Your task to perform on an android device: What's on my calendar tomorrow? Image 0: 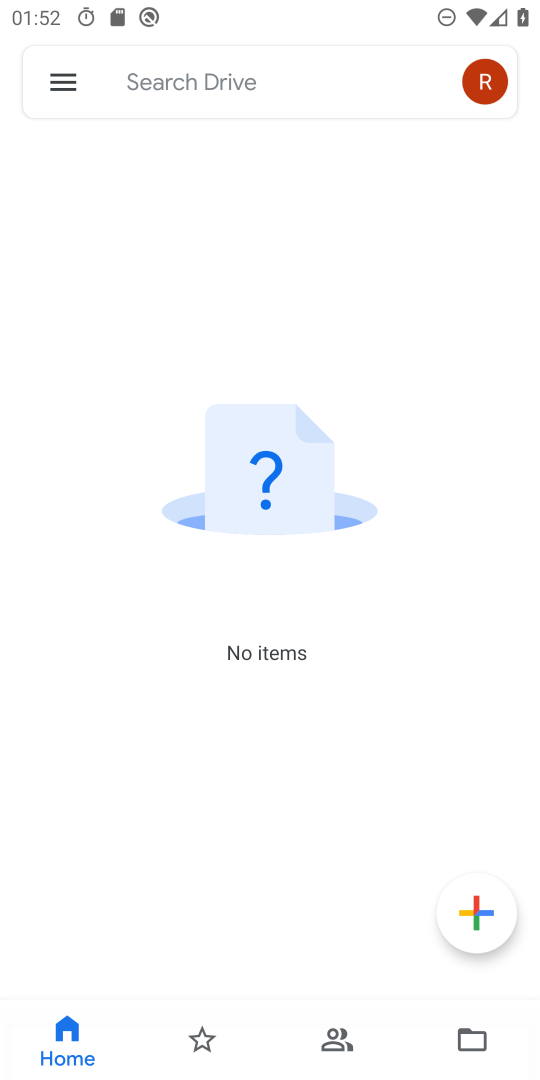
Step 0: press home button
Your task to perform on an android device: What's on my calendar tomorrow? Image 1: 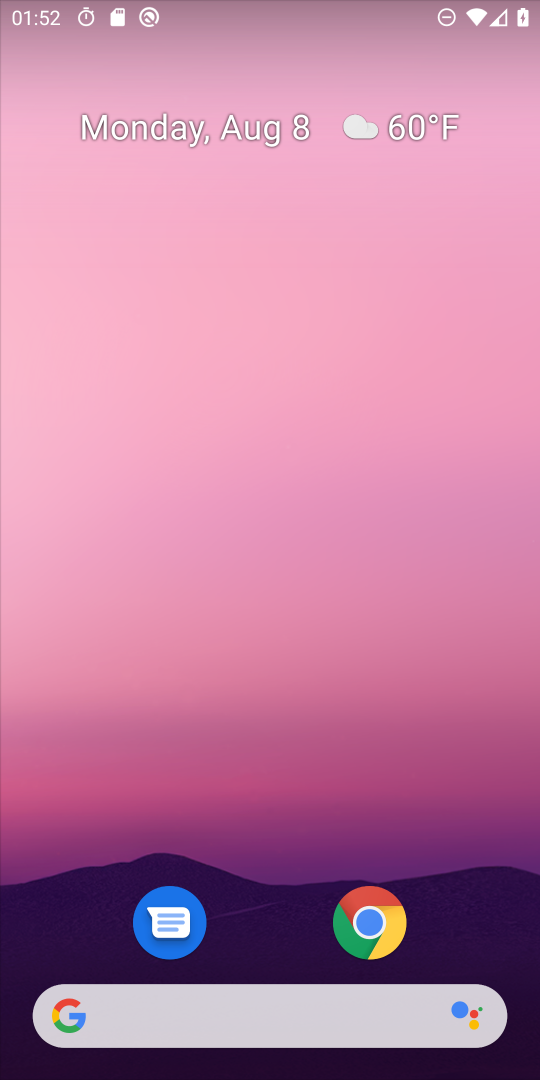
Step 1: drag from (429, 695) to (433, 87)
Your task to perform on an android device: What's on my calendar tomorrow? Image 2: 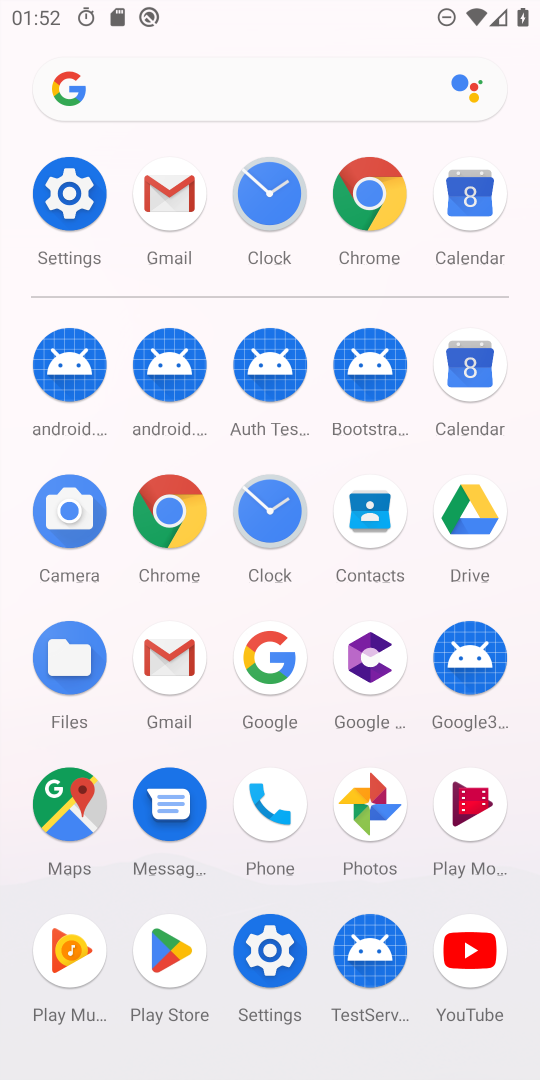
Step 2: click (487, 361)
Your task to perform on an android device: What's on my calendar tomorrow? Image 3: 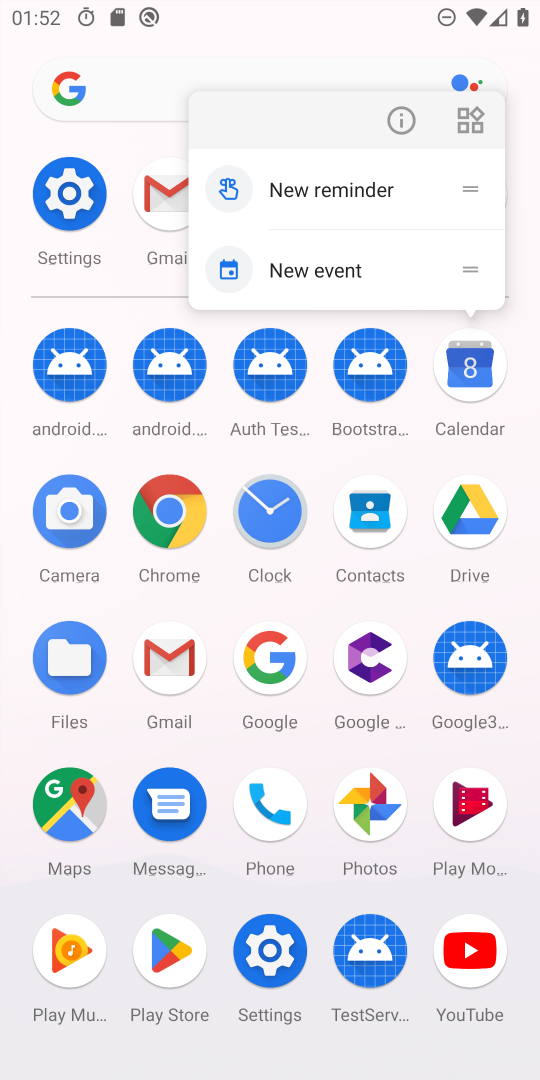
Step 3: click (477, 403)
Your task to perform on an android device: What's on my calendar tomorrow? Image 4: 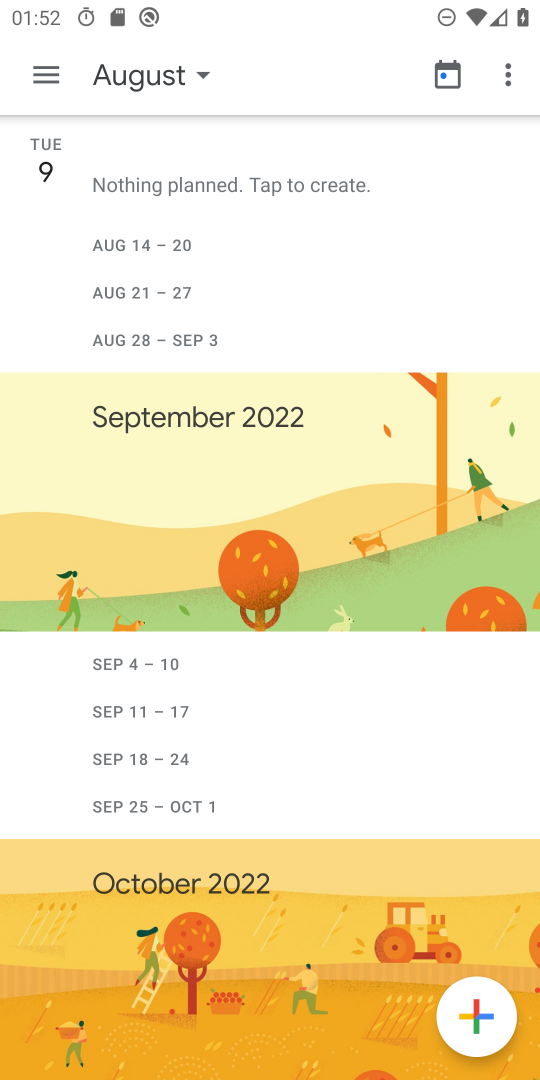
Step 4: click (165, 80)
Your task to perform on an android device: What's on my calendar tomorrow? Image 5: 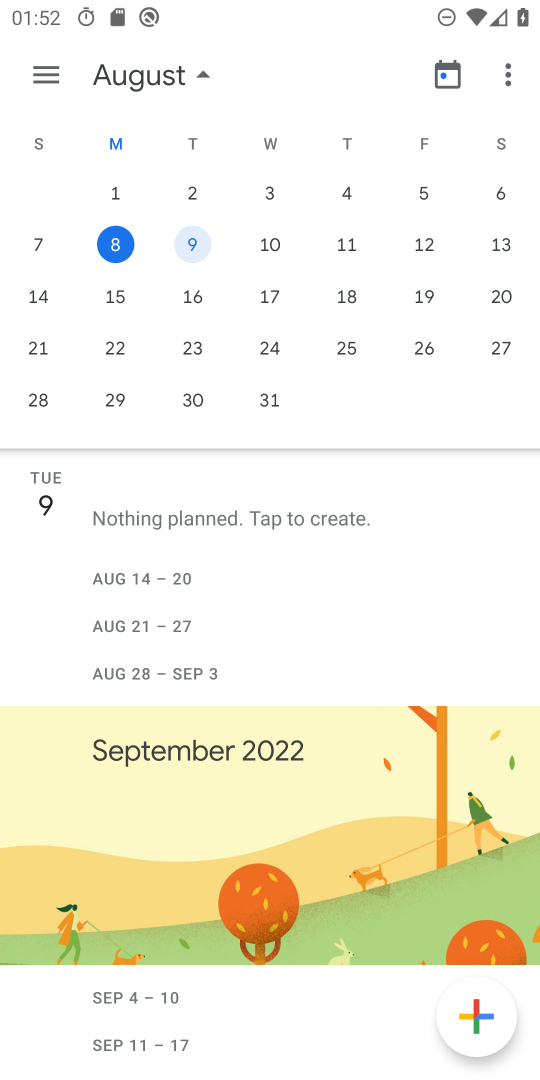
Step 5: click (196, 226)
Your task to perform on an android device: What's on my calendar tomorrow? Image 6: 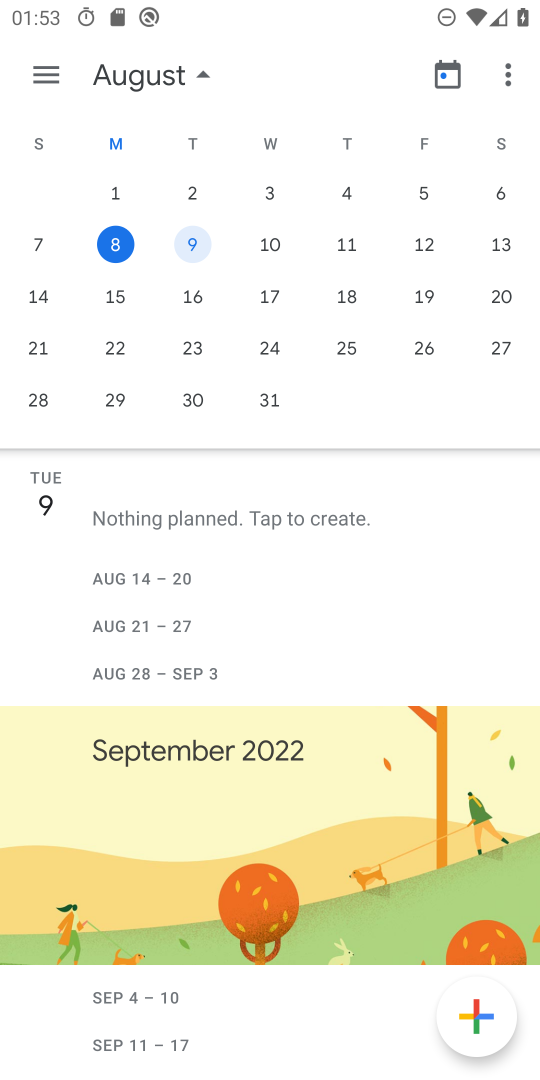
Step 6: click (186, 236)
Your task to perform on an android device: What's on my calendar tomorrow? Image 7: 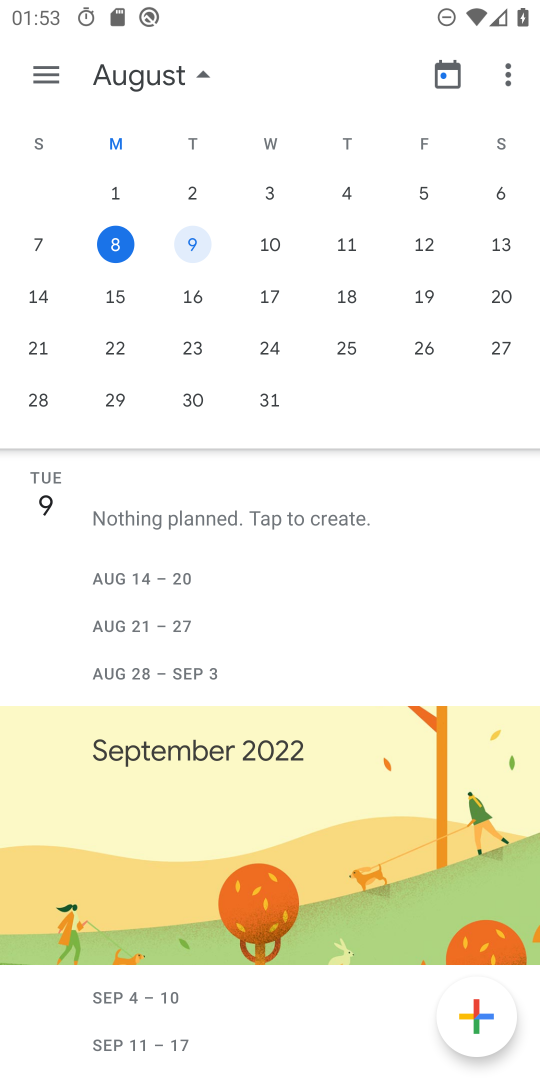
Step 7: task complete